Your task to perform on an android device: Go to settings Image 0: 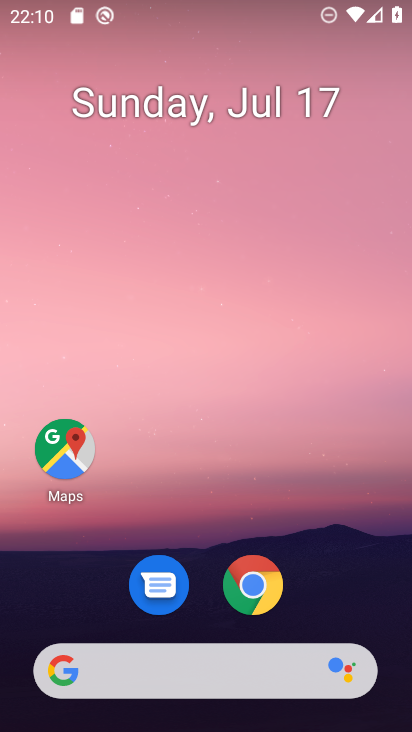
Step 0: press home button
Your task to perform on an android device: Go to settings Image 1: 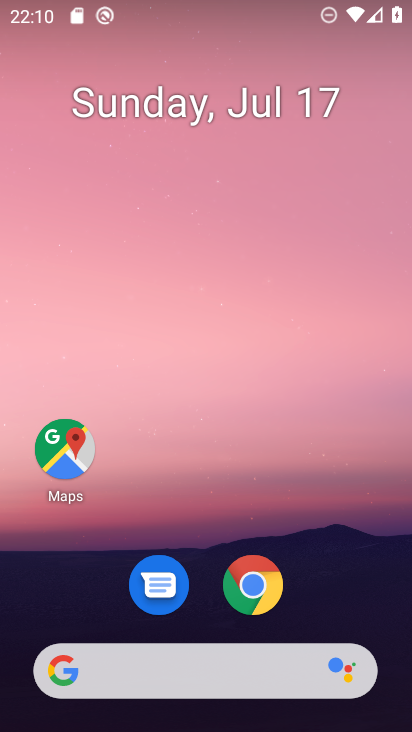
Step 1: drag from (247, 681) to (353, 2)
Your task to perform on an android device: Go to settings Image 2: 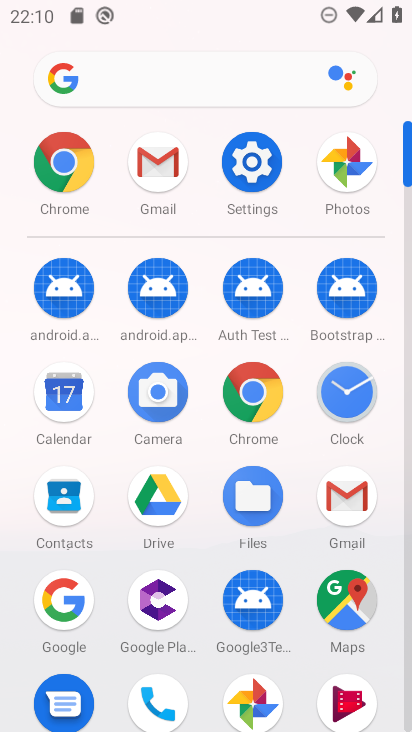
Step 2: click (246, 162)
Your task to perform on an android device: Go to settings Image 3: 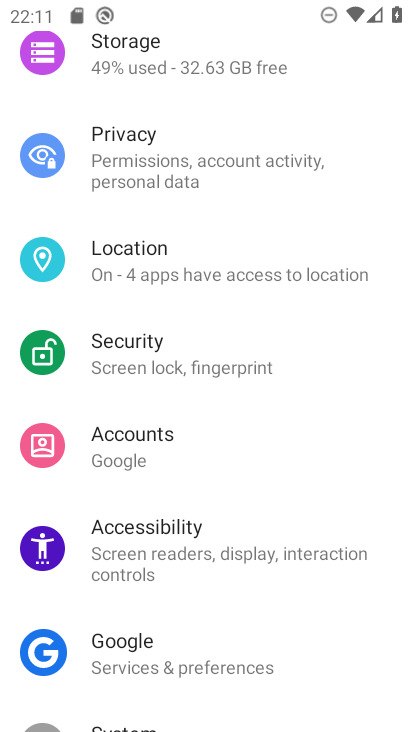
Step 3: task complete